Your task to perform on an android device: check storage Image 0: 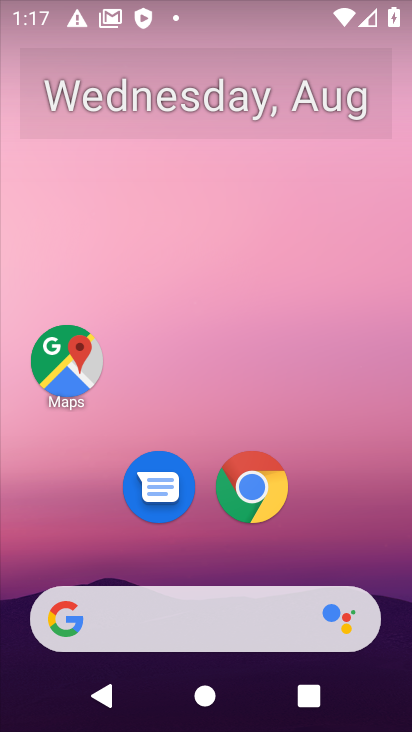
Step 0: click (255, 483)
Your task to perform on an android device: check storage Image 1: 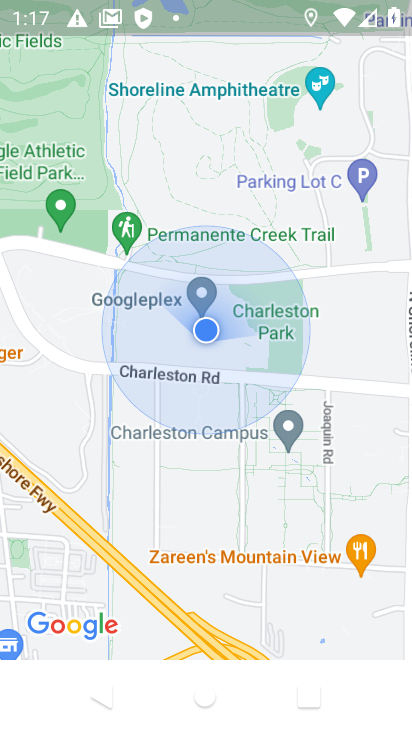
Step 1: press home button
Your task to perform on an android device: check storage Image 2: 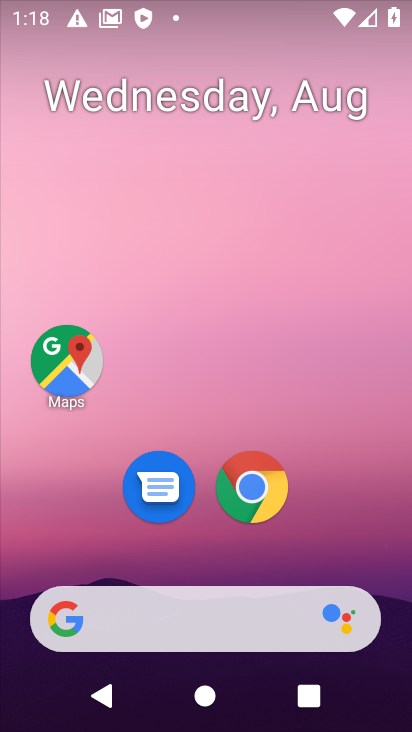
Step 2: drag from (218, 545) to (267, 176)
Your task to perform on an android device: check storage Image 3: 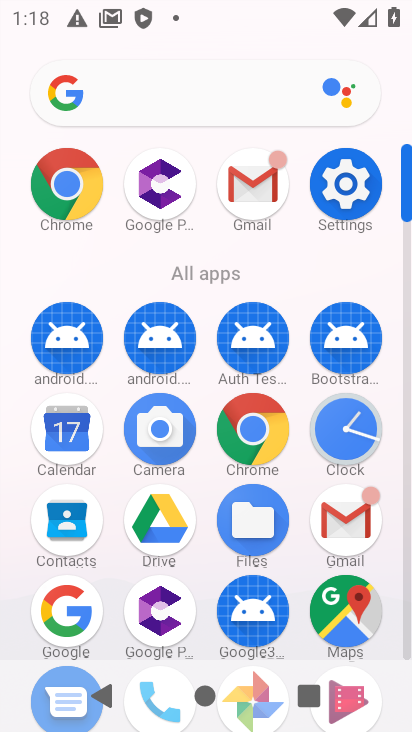
Step 3: click (343, 185)
Your task to perform on an android device: check storage Image 4: 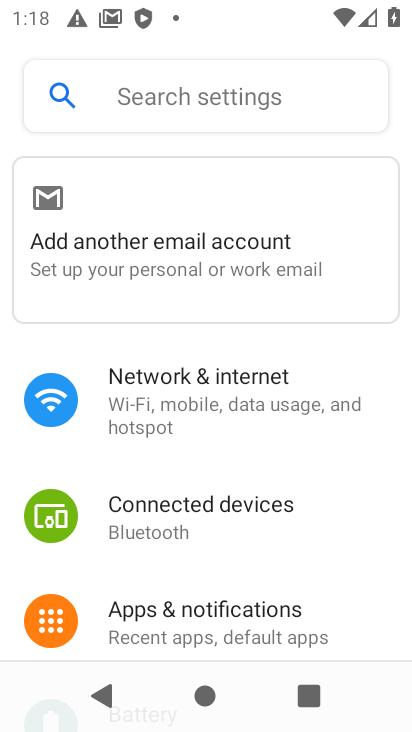
Step 4: drag from (358, 596) to (326, 149)
Your task to perform on an android device: check storage Image 5: 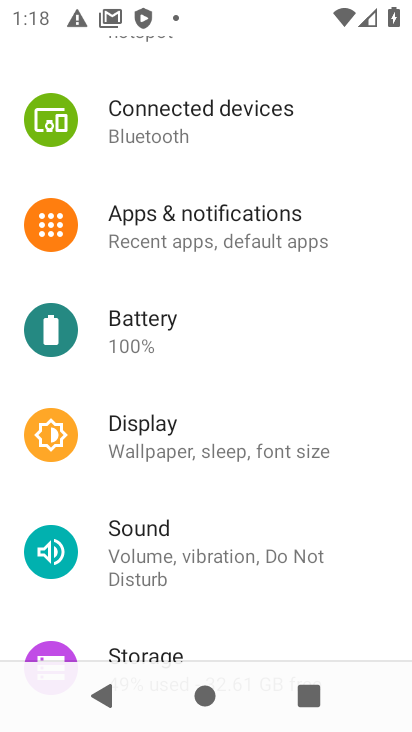
Step 5: drag from (273, 553) to (264, 442)
Your task to perform on an android device: check storage Image 6: 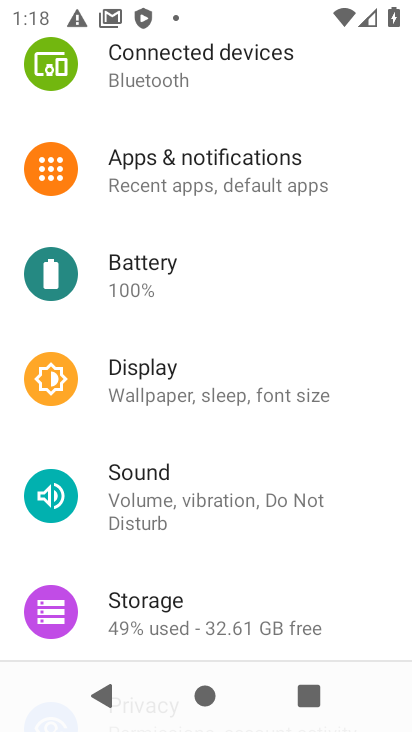
Step 6: click (140, 597)
Your task to perform on an android device: check storage Image 7: 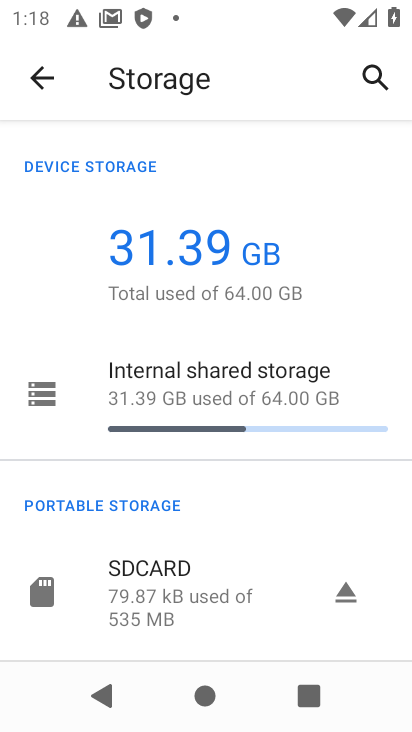
Step 7: task complete